Your task to perform on an android device: Open CNN.com Image 0: 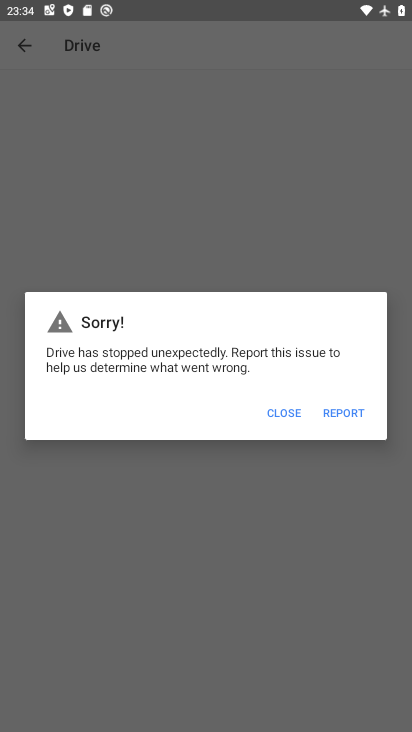
Step 0: click (282, 415)
Your task to perform on an android device: Open CNN.com Image 1: 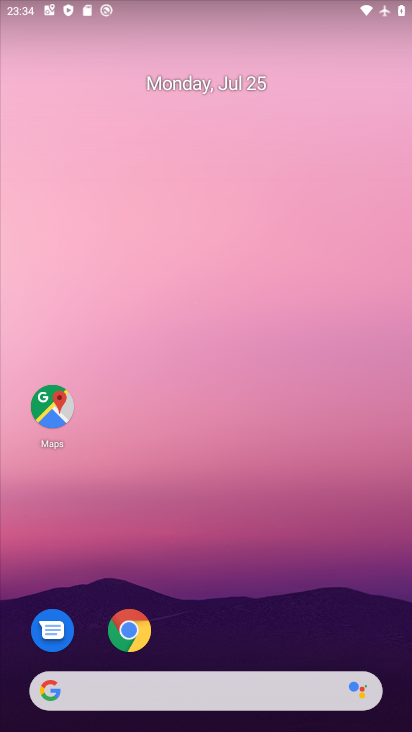
Step 1: drag from (221, 708) to (147, 209)
Your task to perform on an android device: Open CNN.com Image 2: 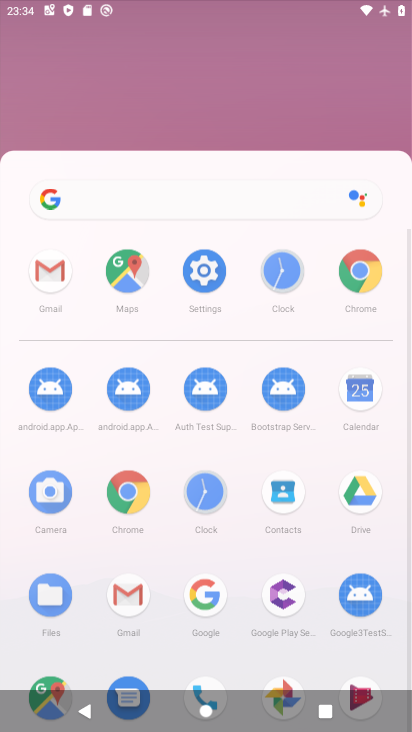
Step 2: drag from (236, 464) to (236, 122)
Your task to perform on an android device: Open CNN.com Image 3: 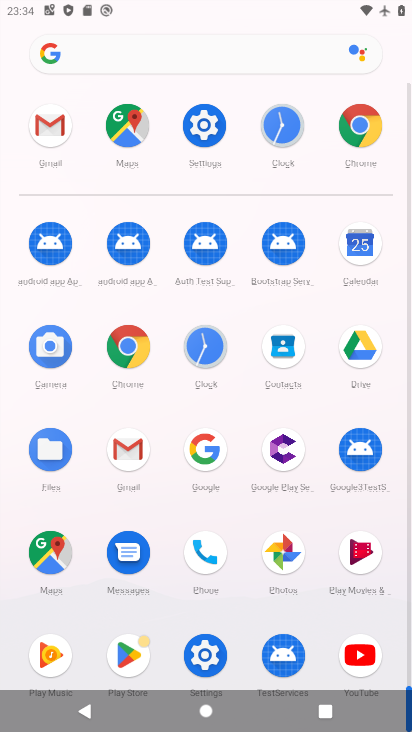
Step 3: drag from (304, 465) to (285, 133)
Your task to perform on an android device: Open CNN.com Image 4: 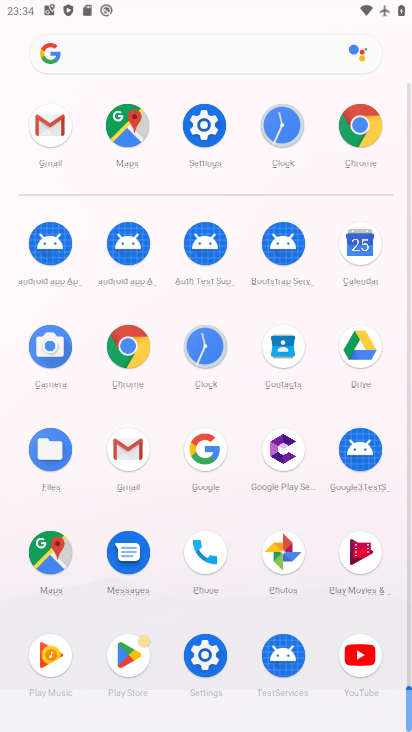
Step 4: click (360, 129)
Your task to perform on an android device: Open CNN.com Image 5: 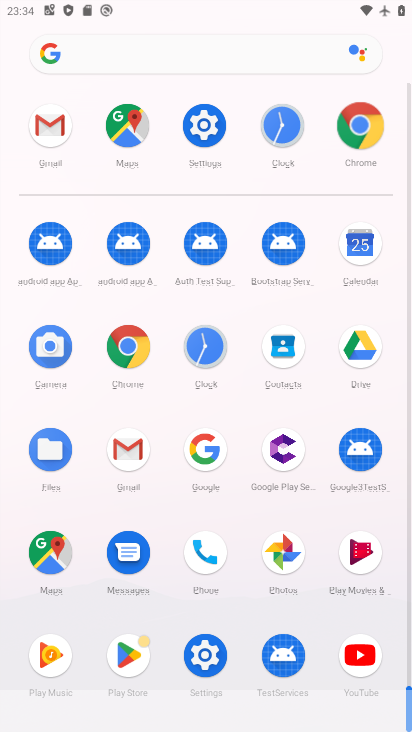
Step 5: click (359, 131)
Your task to perform on an android device: Open CNN.com Image 6: 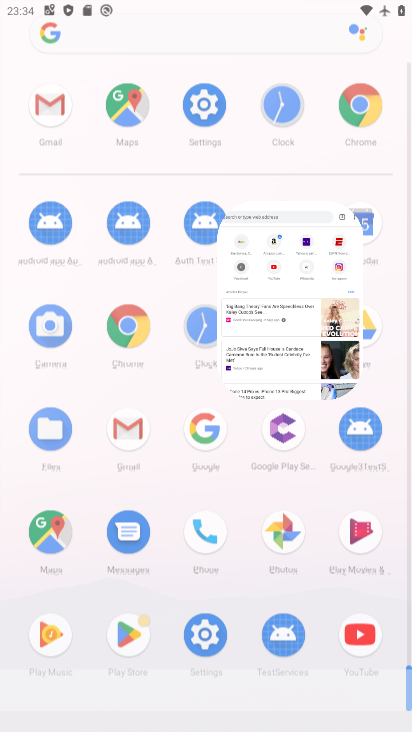
Step 6: click (359, 131)
Your task to perform on an android device: Open CNN.com Image 7: 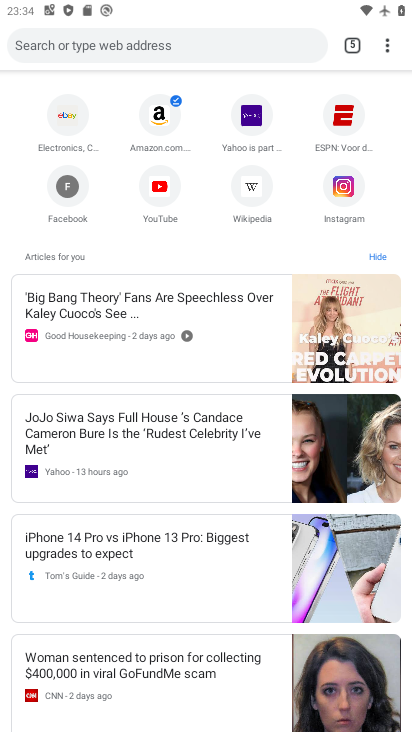
Step 7: click (50, 39)
Your task to perform on an android device: Open CNN.com Image 8: 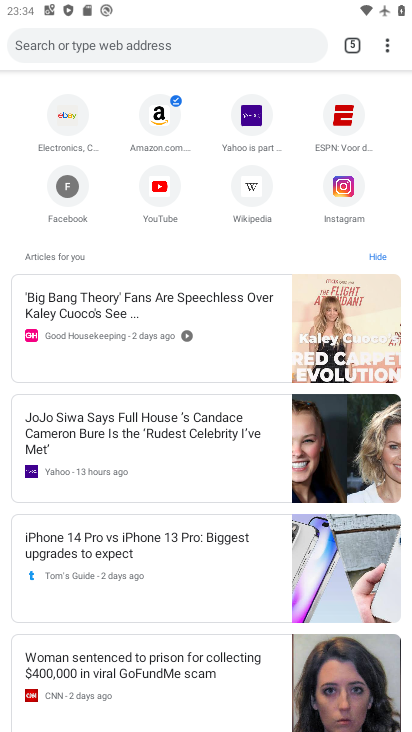
Step 8: click (55, 40)
Your task to perform on an android device: Open CNN.com Image 9: 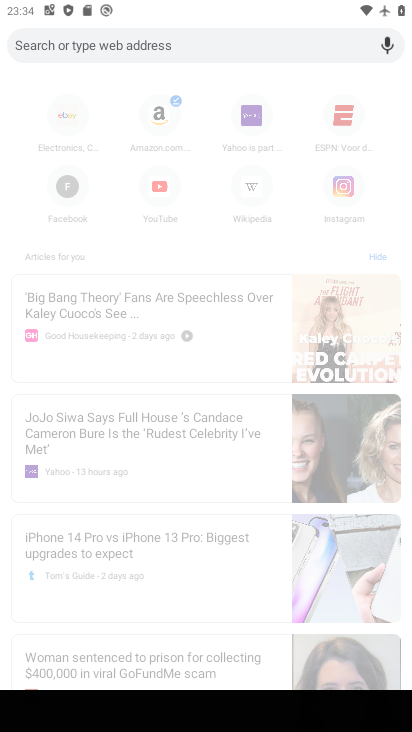
Step 9: click (56, 43)
Your task to perform on an android device: Open CNN.com Image 10: 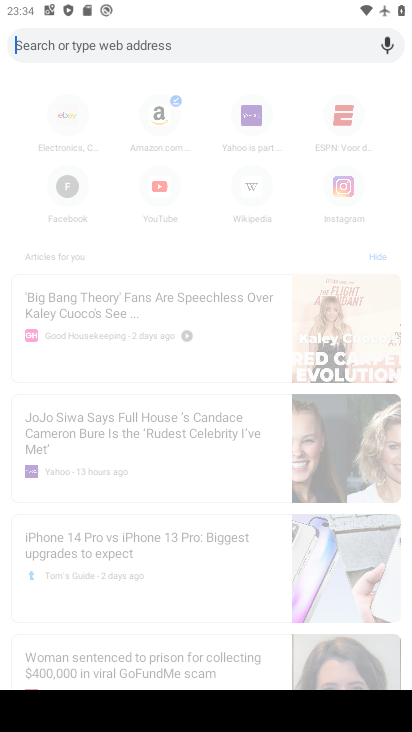
Step 10: type "CNN.com"
Your task to perform on an android device: Open CNN.com Image 11: 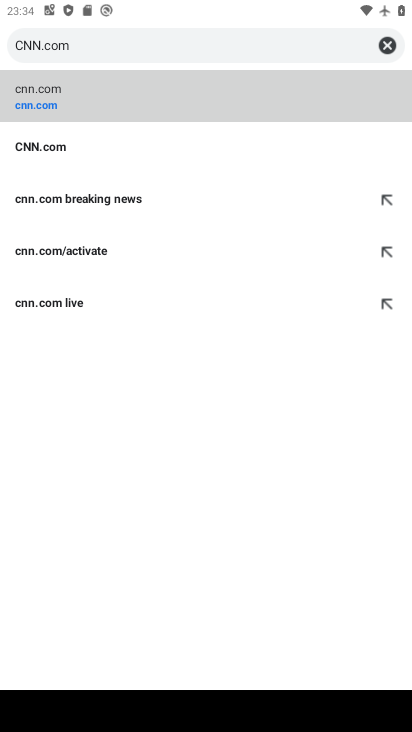
Step 11: click (24, 98)
Your task to perform on an android device: Open CNN.com Image 12: 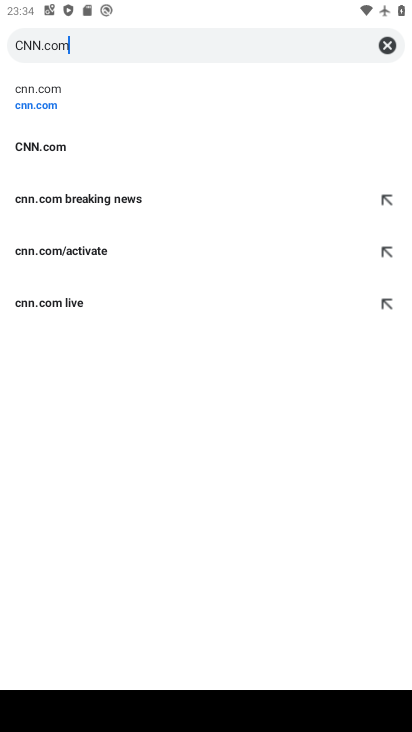
Step 12: click (25, 98)
Your task to perform on an android device: Open CNN.com Image 13: 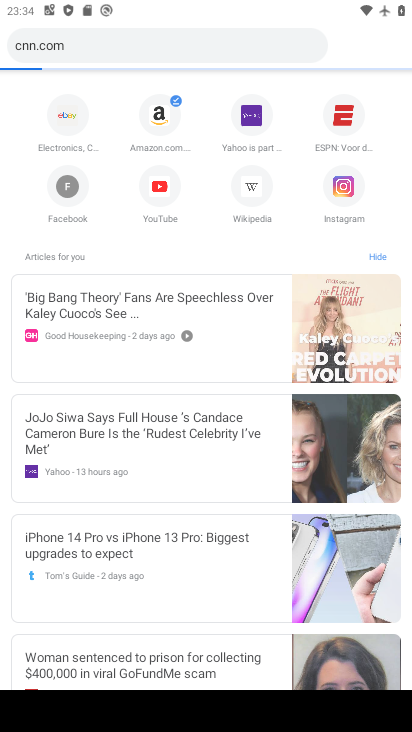
Step 13: click (30, 97)
Your task to perform on an android device: Open CNN.com Image 14: 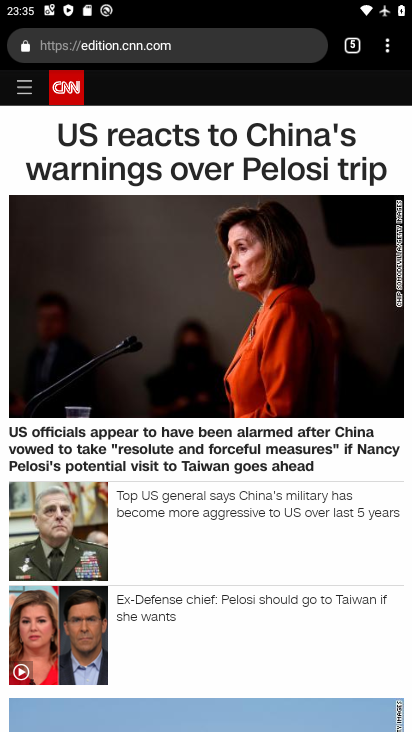
Step 14: task complete